Your task to perform on an android device: Open Yahoo.com Image 0: 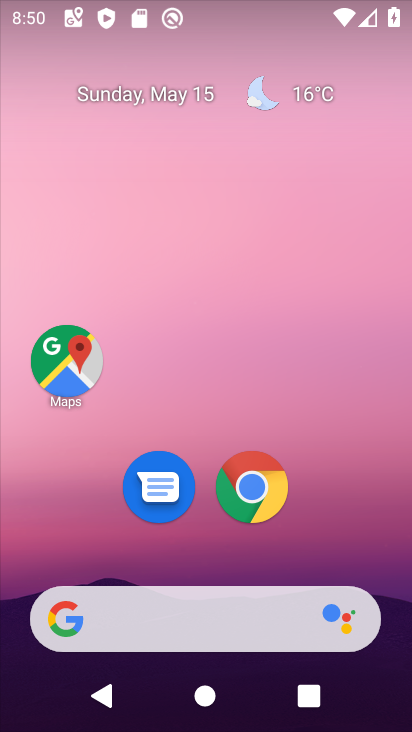
Step 0: click (255, 490)
Your task to perform on an android device: Open Yahoo.com Image 1: 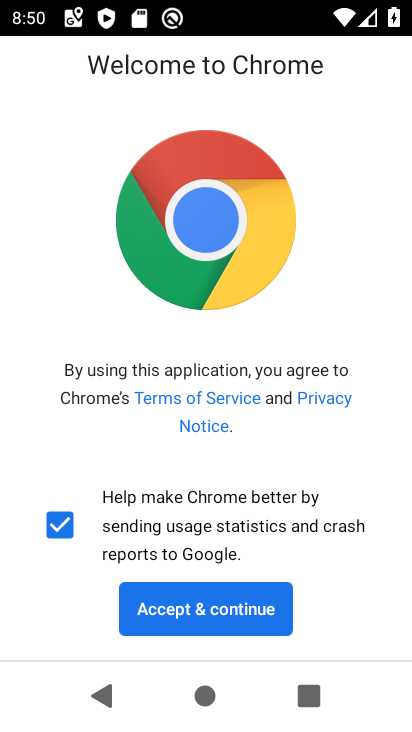
Step 1: click (196, 603)
Your task to perform on an android device: Open Yahoo.com Image 2: 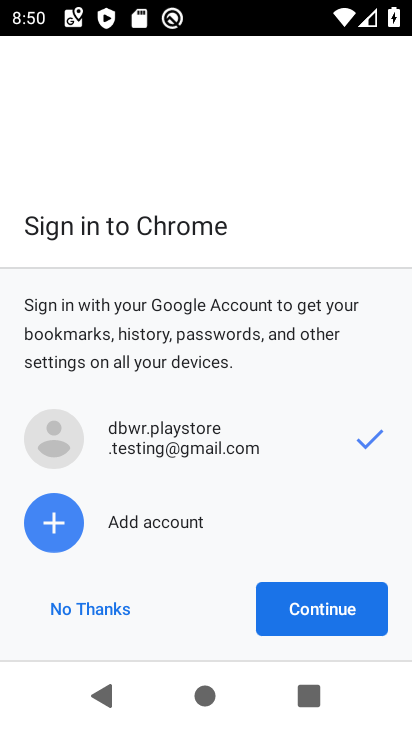
Step 2: click (322, 601)
Your task to perform on an android device: Open Yahoo.com Image 3: 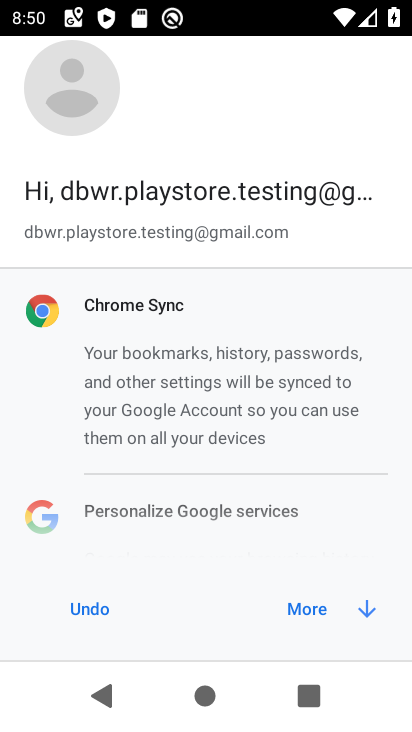
Step 3: click (315, 611)
Your task to perform on an android device: Open Yahoo.com Image 4: 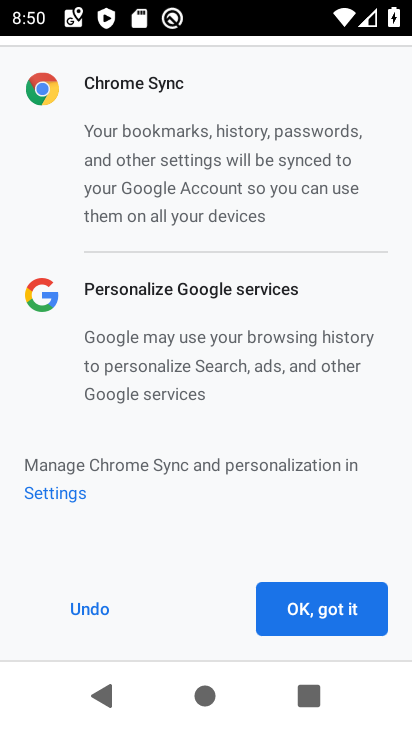
Step 4: click (315, 611)
Your task to perform on an android device: Open Yahoo.com Image 5: 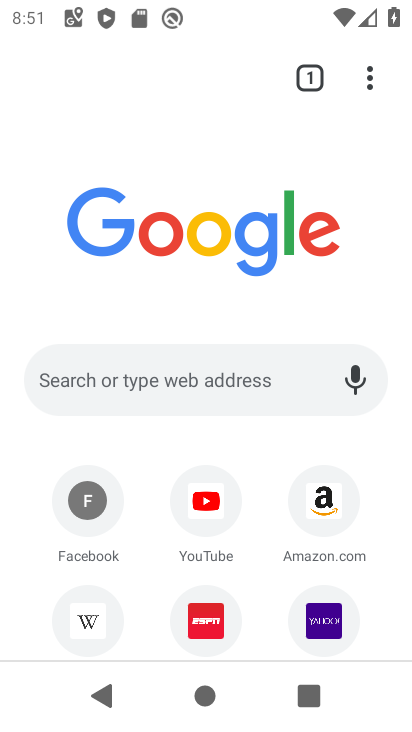
Step 5: click (176, 391)
Your task to perform on an android device: Open Yahoo.com Image 6: 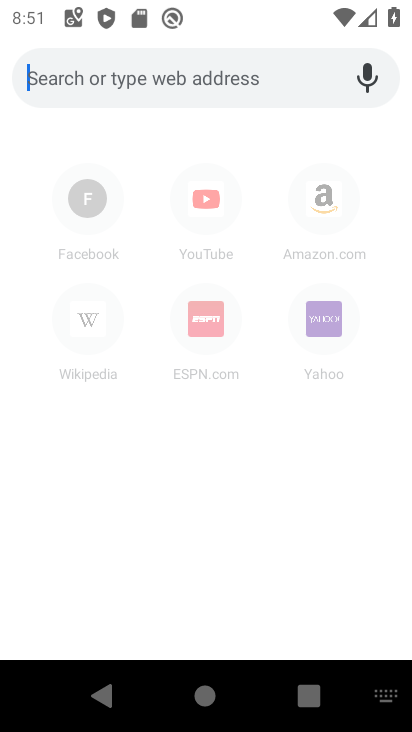
Step 6: type "yahoo.com"
Your task to perform on an android device: Open Yahoo.com Image 7: 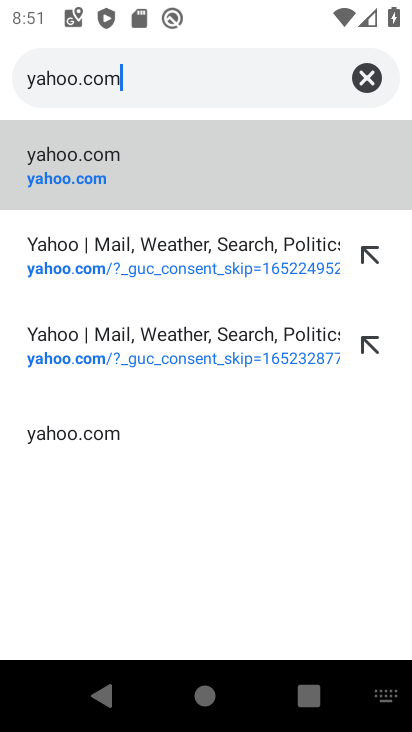
Step 7: click (62, 157)
Your task to perform on an android device: Open Yahoo.com Image 8: 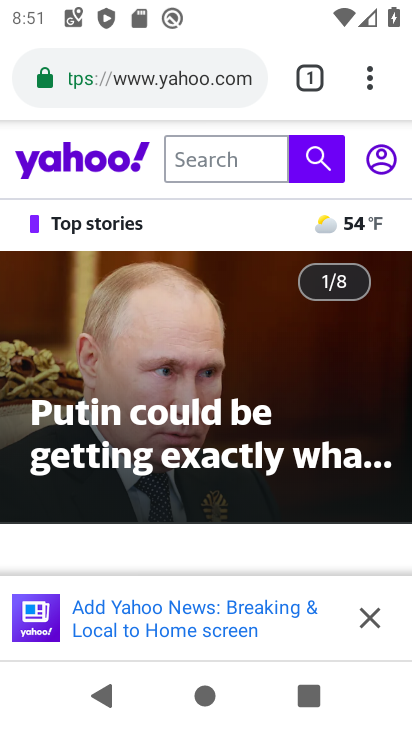
Step 8: task complete